Your task to perform on an android device: turn on showing notifications on the lock screen Image 0: 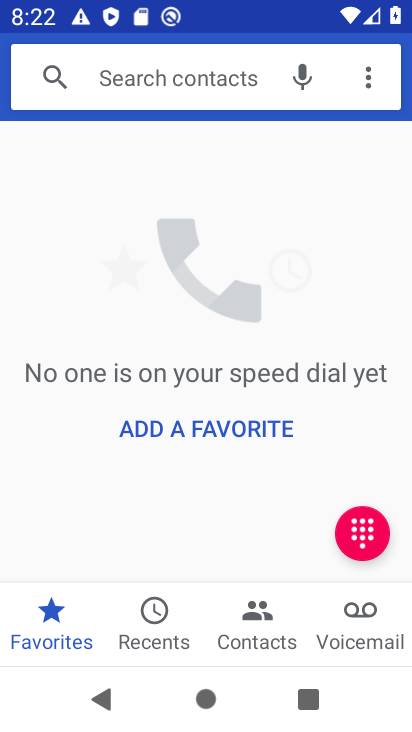
Step 0: press home button
Your task to perform on an android device: turn on showing notifications on the lock screen Image 1: 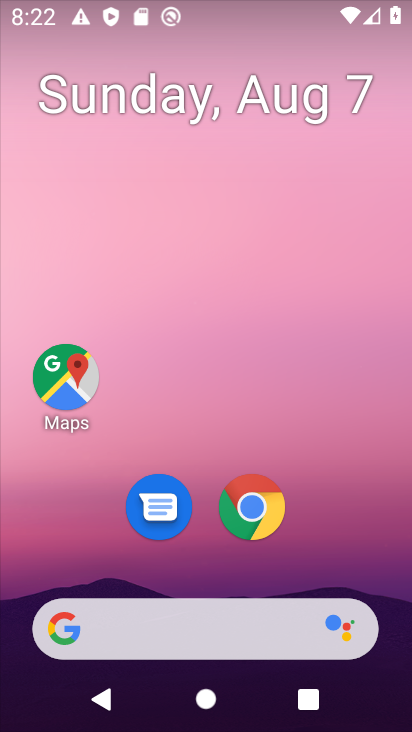
Step 1: drag from (155, 633) to (294, 24)
Your task to perform on an android device: turn on showing notifications on the lock screen Image 2: 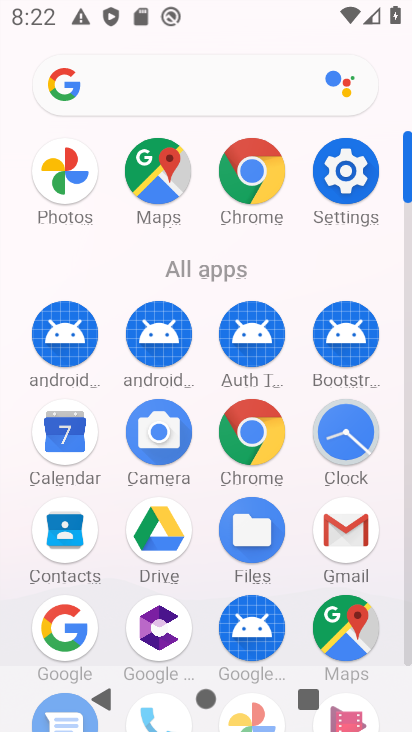
Step 2: click (343, 182)
Your task to perform on an android device: turn on showing notifications on the lock screen Image 3: 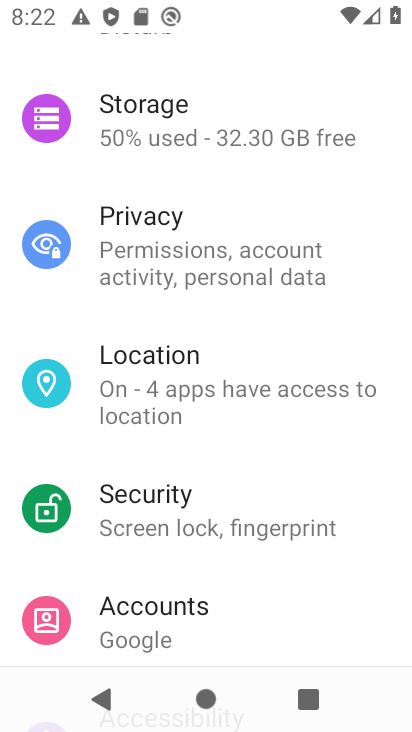
Step 3: drag from (297, 206) to (313, 616)
Your task to perform on an android device: turn on showing notifications on the lock screen Image 4: 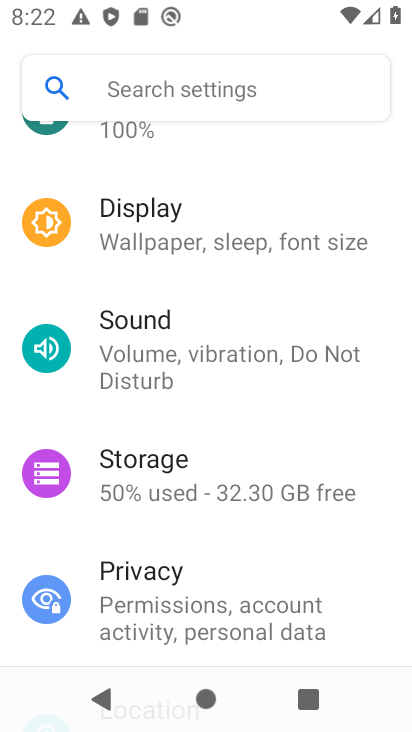
Step 4: drag from (268, 170) to (261, 608)
Your task to perform on an android device: turn on showing notifications on the lock screen Image 5: 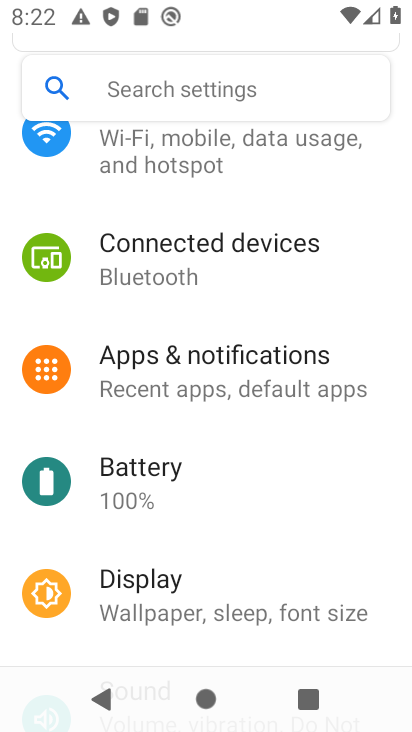
Step 5: click (208, 374)
Your task to perform on an android device: turn on showing notifications on the lock screen Image 6: 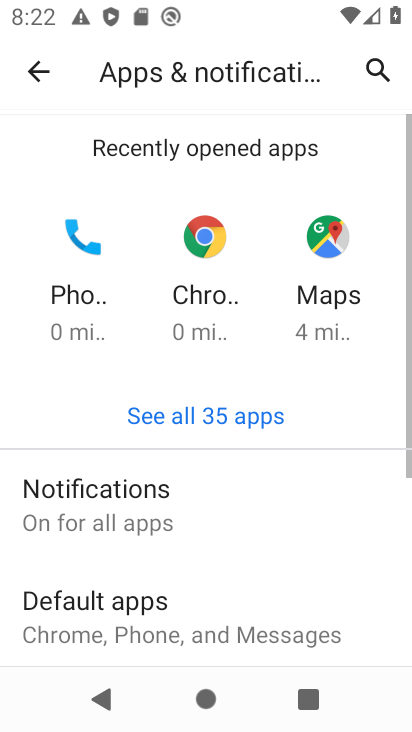
Step 6: click (97, 492)
Your task to perform on an android device: turn on showing notifications on the lock screen Image 7: 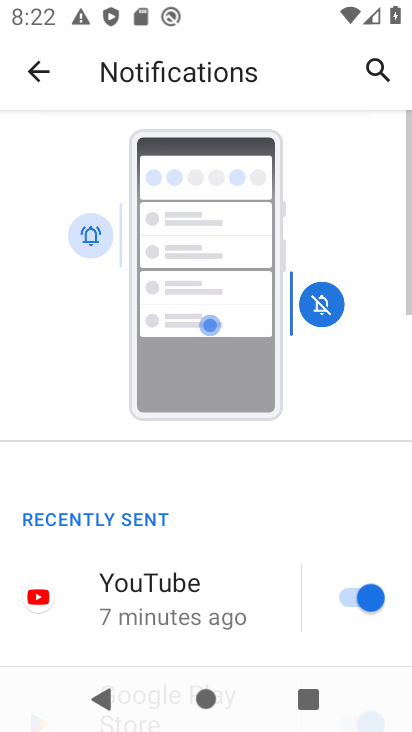
Step 7: drag from (250, 570) to (379, 28)
Your task to perform on an android device: turn on showing notifications on the lock screen Image 8: 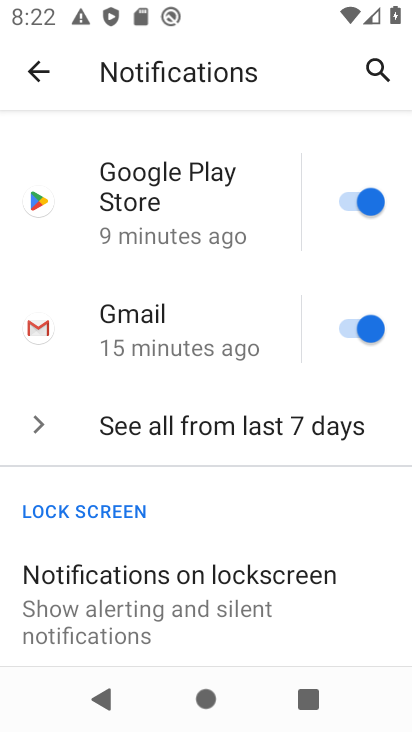
Step 8: click (218, 600)
Your task to perform on an android device: turn on showing notifications on the lock screen Image 9: 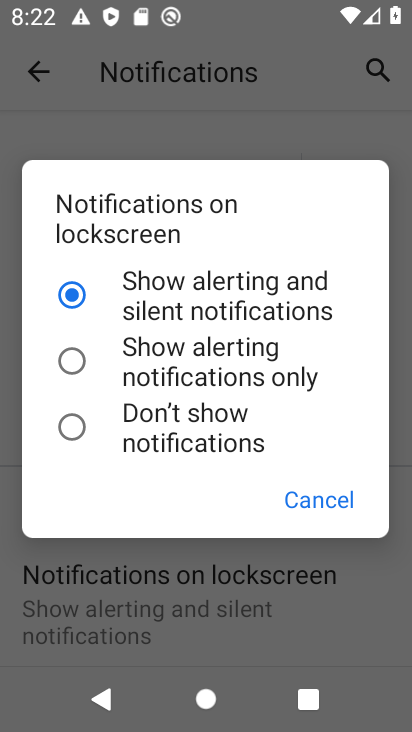
Step 9: task complete